Your task to perform on an android device: Open Google Chrome and click the shortcut for Amazon.com Image 0: 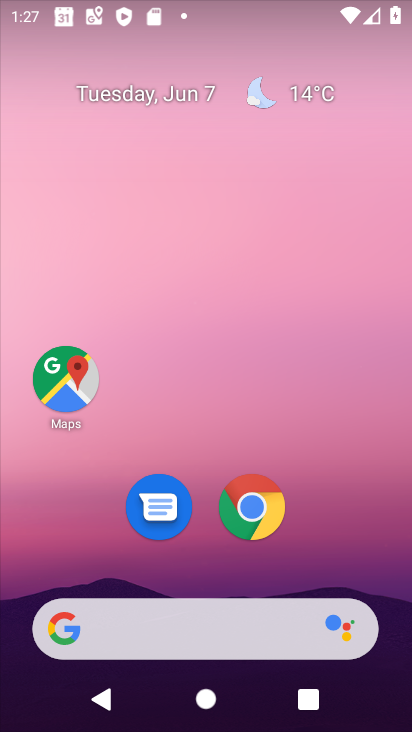
Step 0: click (256, 508)
Your task to perform on an android device: Open Google Chrome and click the shortcut for Amazon.com Image 1: 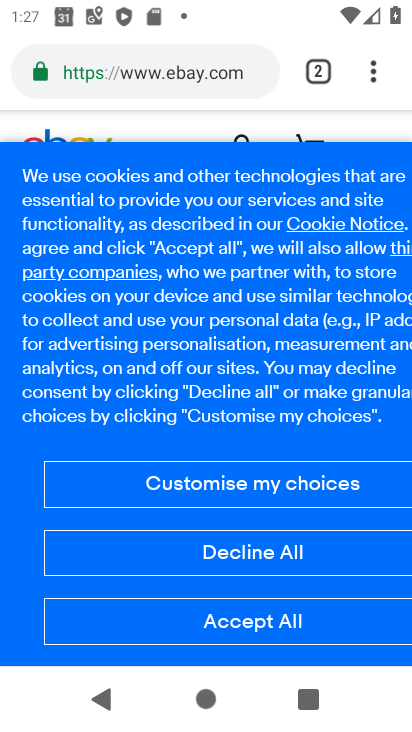
Step 1: click (374, 80)
Your task to perform on an android device: Open Google Chrome and click the shortcut for Amazon.com Image 2: 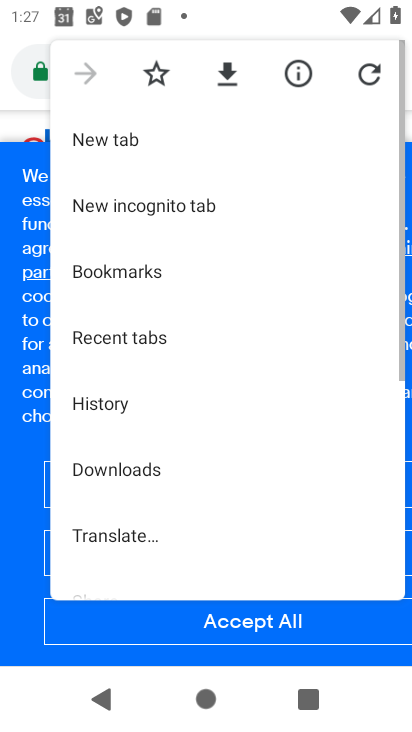
Step 2: click (124, 131)
Your task to perform on an android device: Open Google Chrome and click the shortcut for Amazon.com Image 3: 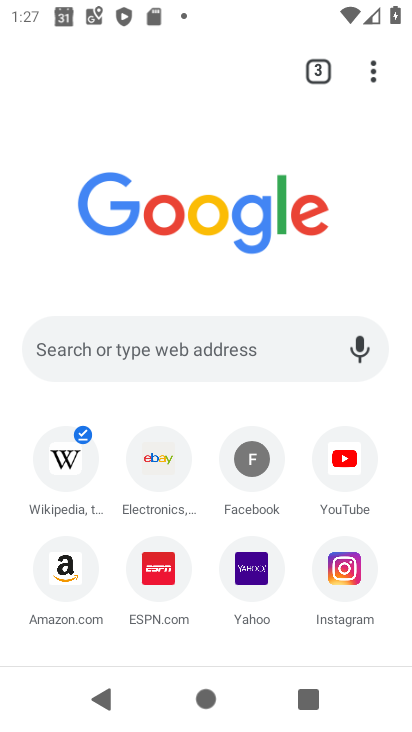
Step 3: click (64, 569)
Your task to perform on an android device: Open Google Chrome and click the shortcut for Amazon.com Image 4: 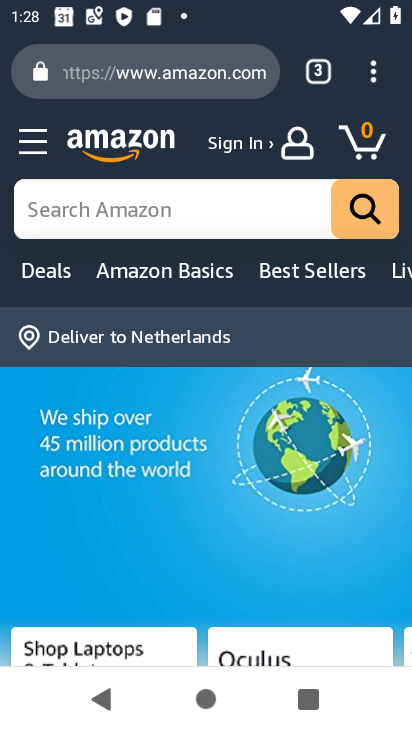
Step 4: task complete